Your task to perform on an android device: open chrome privacy settings Image 0: 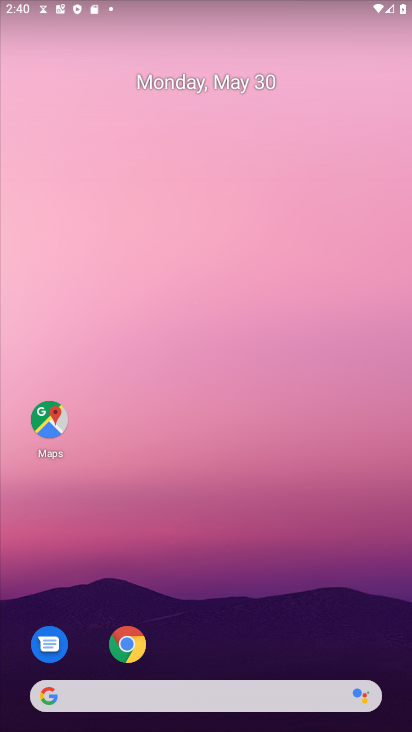
Step 0: click (128, 642)
Your task to perform on an android device: open chrome privacy settings Image 1: 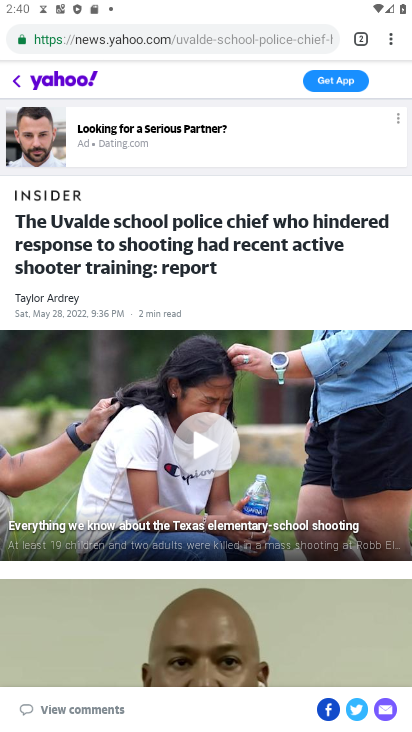
Step 1: drag from (395, 34) to (264, 467)
Your task to perform on an android device: open chrome privacy settings Image 2: 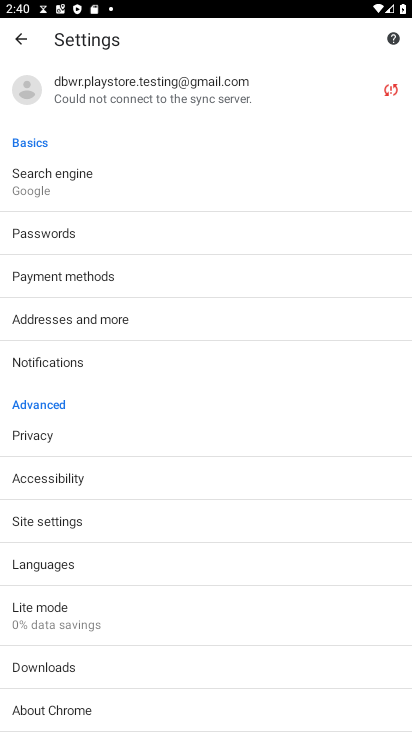
Step 2: click (33, 431)
Your task to perform on an android device: open chrome privacy settings Image 3: 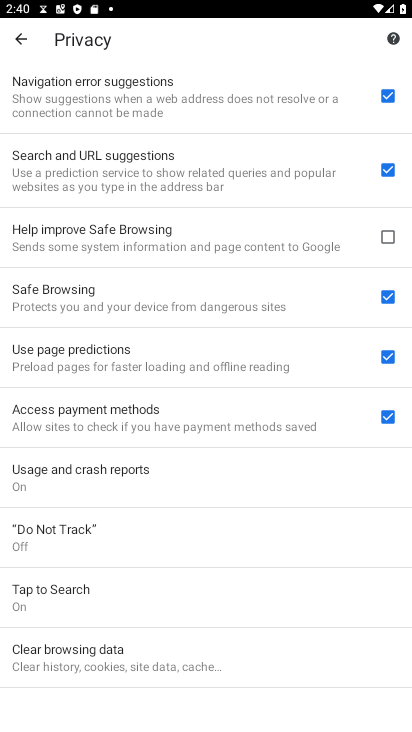
Step 3: task complete